Your task to perform on an android device: Open the calendar app, open the side menu, and click the "Day" option Image 0: 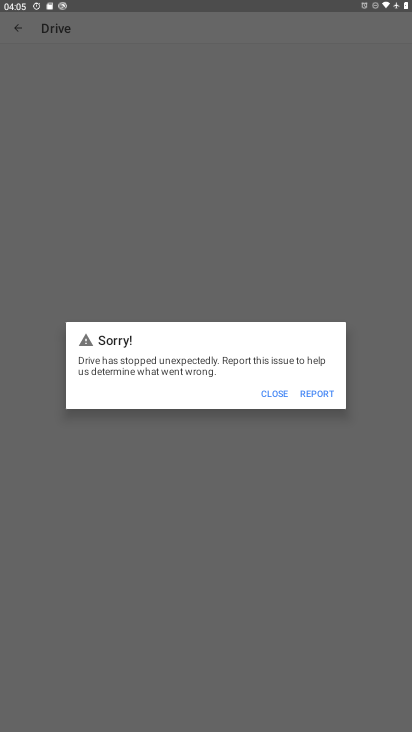
Step 0: press home button
Your task to perform on an android device: Open the calendar app, open the side menu, and click the "Day" option Image 1: 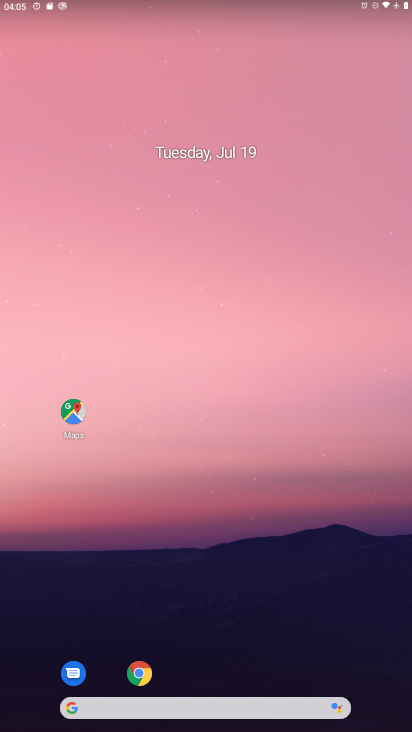
Step 1: drag from (186, 672) to (233, 30)
Your task to perform on an android device: Open the calendar app, open the side menu, and click the "Day" option Image 2: 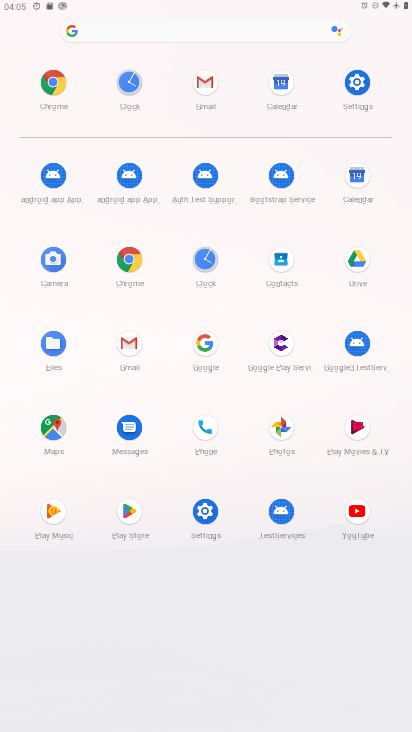
Step 2: click (360, 185)
Your task to perform on an android device: Open the calendar app, open the side menu, and click the "Day" option Image 3: 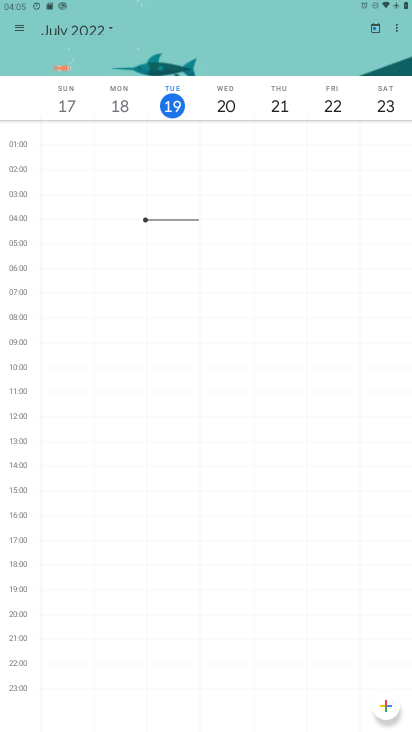
Step 3: click (19, 26)
Your task to perform on an android device: Open the calendar app, open the side menu, and click the "Day" option Image 4: 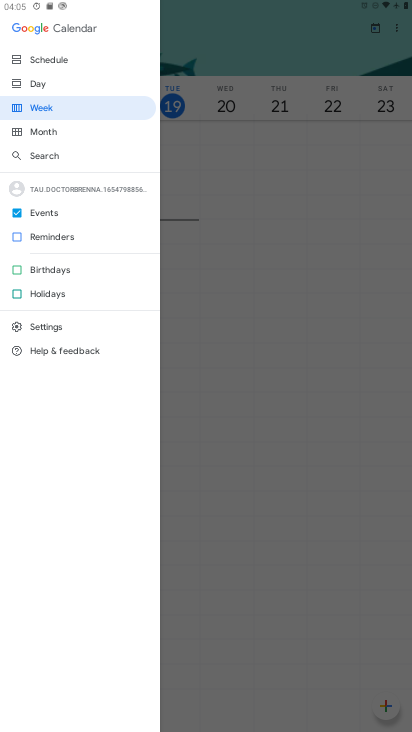
Step 4: click (53, 88)
Your task to perform on an android device: Open the calendar app, open the side menu, and click the "Day" option Image 5: 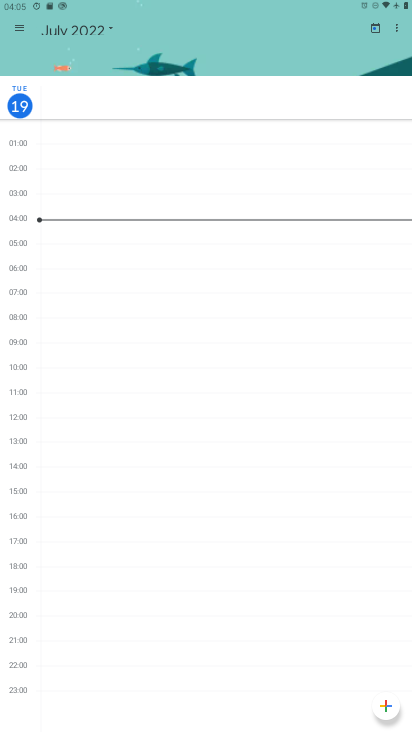
Step 5: task complete